Your task to perform on an android device: Open Yahoo.com Image 0: 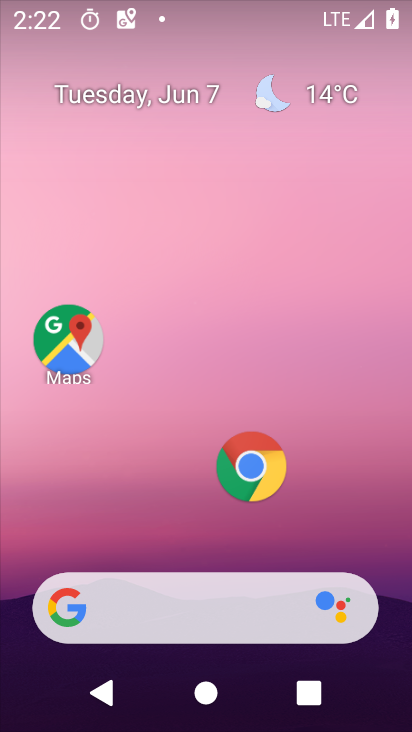
Step 0: click (235, 462)
Your task to perform on an android device: Open Yahoo.com Image 1: 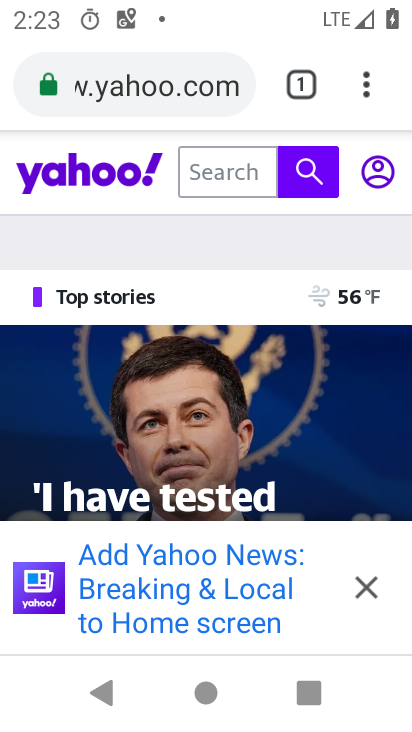
Step 1: task complete